Your task to perform on an android device: Go to ESPN.com Image 0: 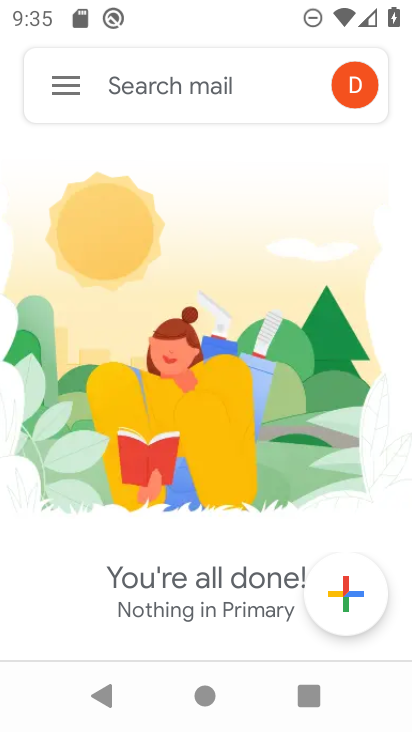
Step 0: press home button
Your task to perform on an android device: Go to ESPN.com Image 1: 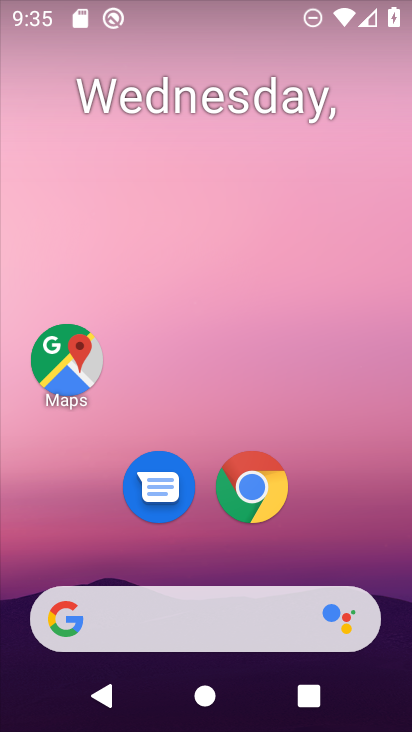
Step 1: drag from (243, 657) to (214, 316)
Your task to perform on an android device: Go to ESPN.com Image 2: 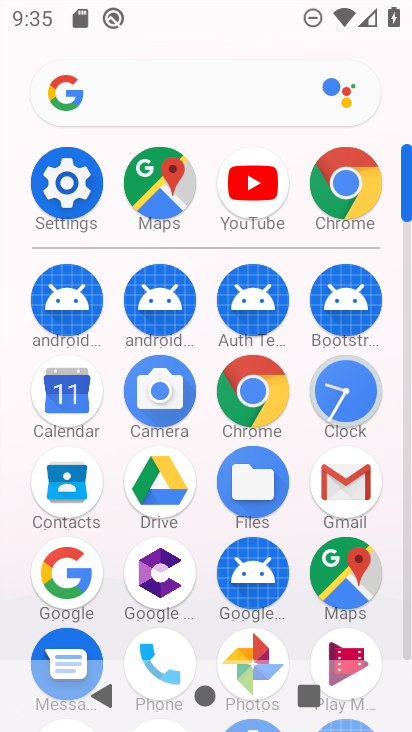
Step 2: click (359, 179)
Your task to perform on an android device: Go to ESPN.com Image 3: 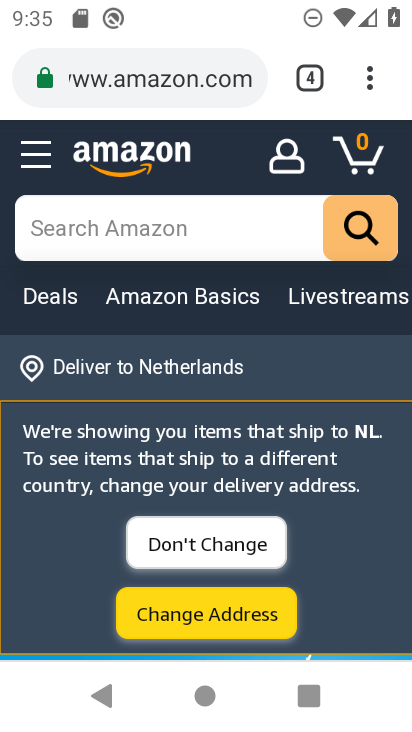
Step 3: click (168, 80)
Your task to perform on an android device: Go to ESPN.com Image 4: 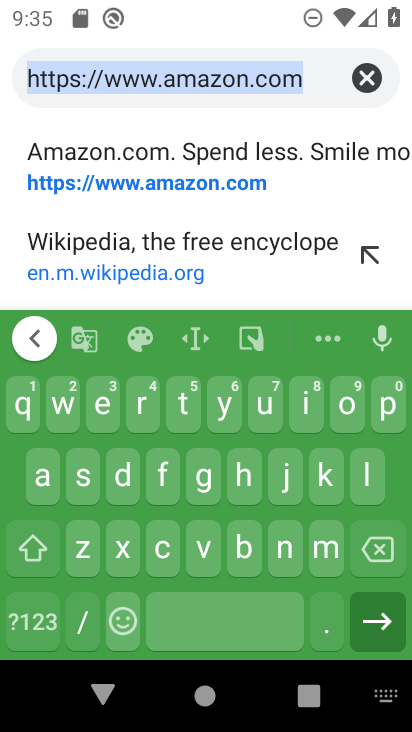
Step 4: click (100, 408)
Your task to perform on an android device: Go to ESPN.com Image 5: 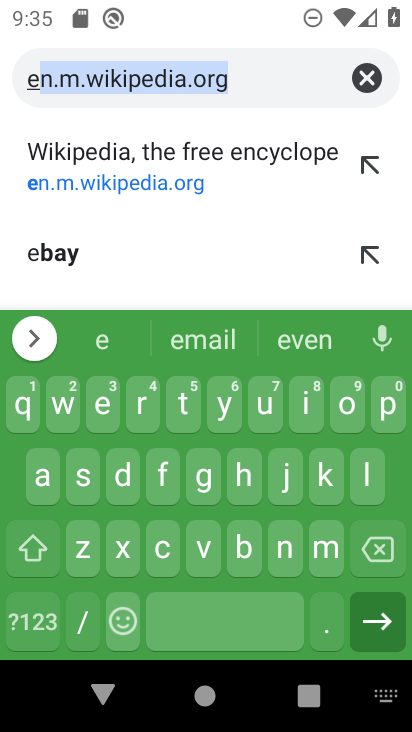
Step 5: click (363, 83)
Your task to perform on an android device: Go to ESPN.com Image 6: 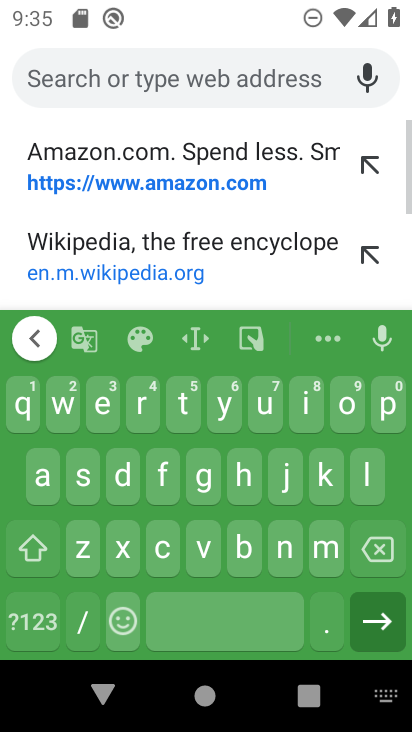
Step 6: click (107, 410)
Your task to perform on an android device: Go to ESPN.com Image 7: 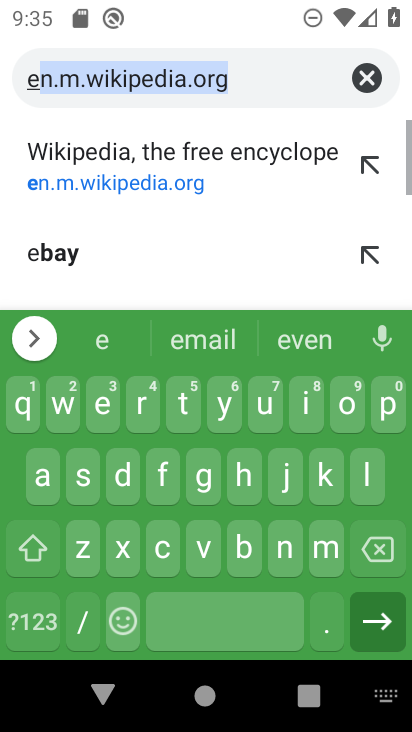
Step 7: click (86, 478)
Your task to perform on an android device: Go to ESPN.com Image 8: 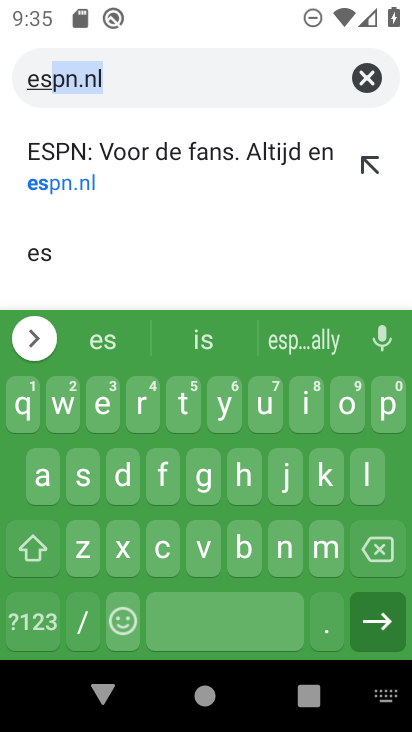
Step 8: click (379, 413)
Your task to perform on an android device: Go to ESPN.com Image 9: 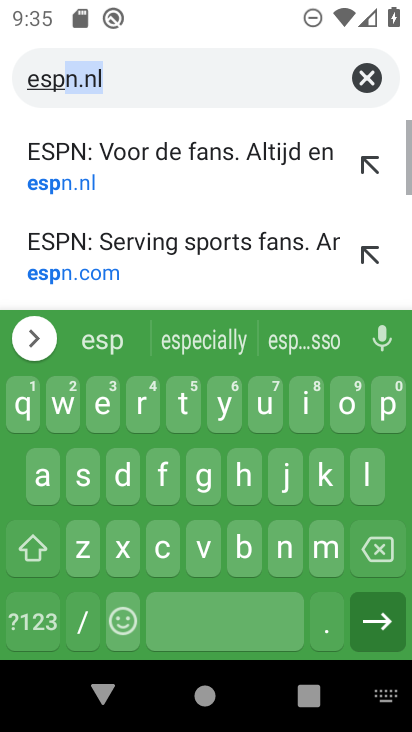
Step 9: click (280, 550)
Your task to perform on an android device: Go to ESPN.com Image 10: 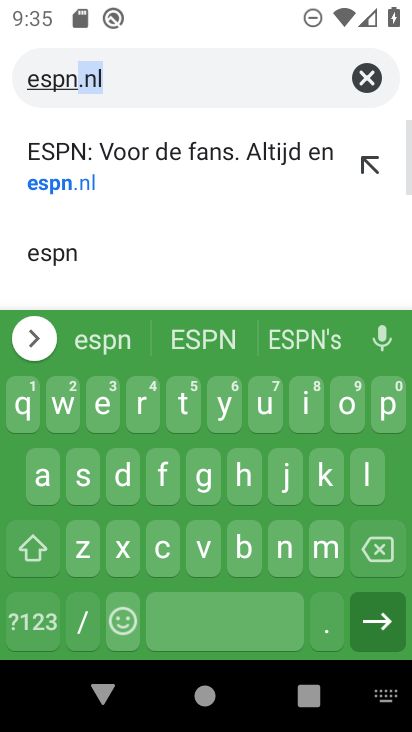
Step 10: click (393, 619)
Your task to perform on an android device: Go to ESPN.com Image 11: 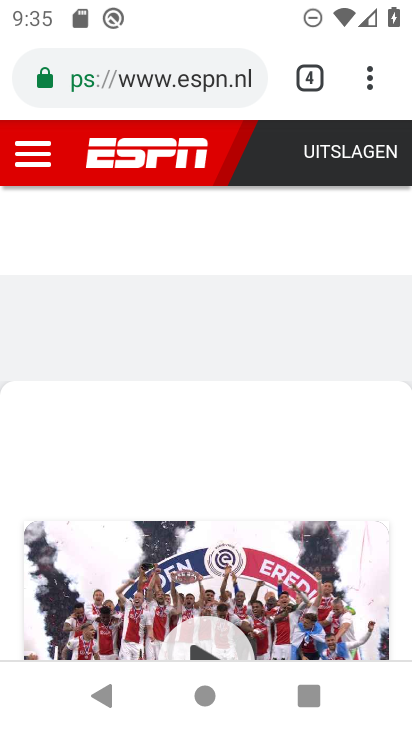
Step 11: task complete